Your task to perform on an android device: toggle priority inbox in the gmail app Image 0: 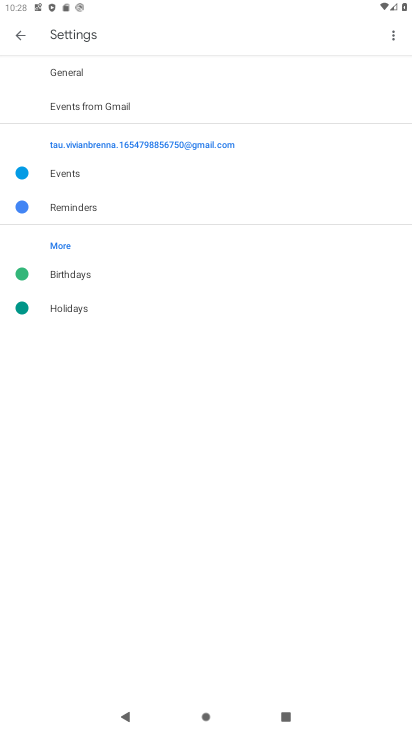
Step 0: press home button
Your task to perform on an android device: toggle priority inbox in the gmail app Image 1: 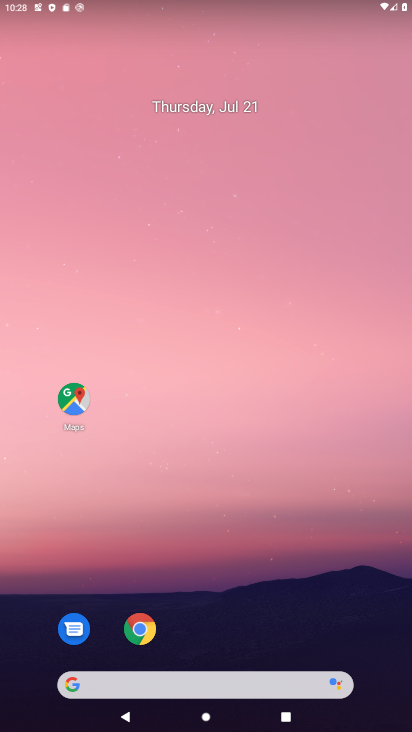
Step 1: drag from (217, 641) to (227, 131)
Your task to perform on an android device: toggle priority inbox in the gmail app Image 2: 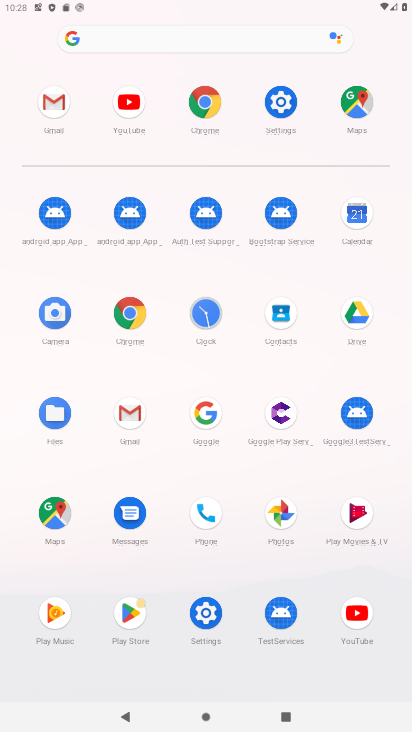
Step 2: click (54, 111)
Your task to perform on an android device: toggle priority inbox in the gmail app Image 3: 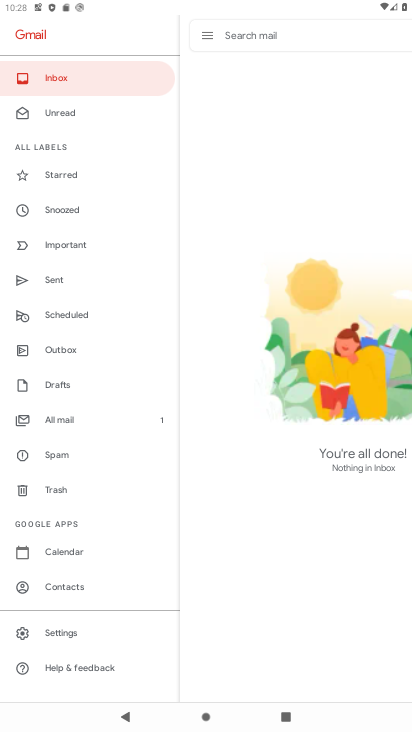
Step 3: click (84, 631)
Your task to perform on an android device: toggle priority inbox in the gmail app Image 4: 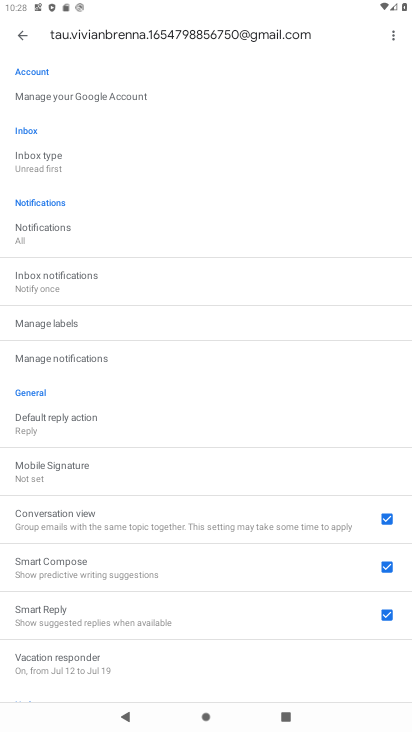
Step 4: click (66, 156)
Your task to perform on an android device: toggle priority inbox in the gmail app Image 5: 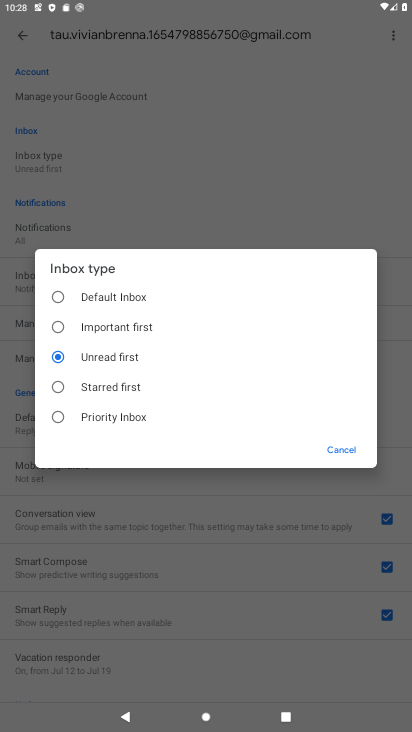
Step 5: click (146, 350)
Your task to perform on an android device: toggle priority inbox in the gmail app Image 6: 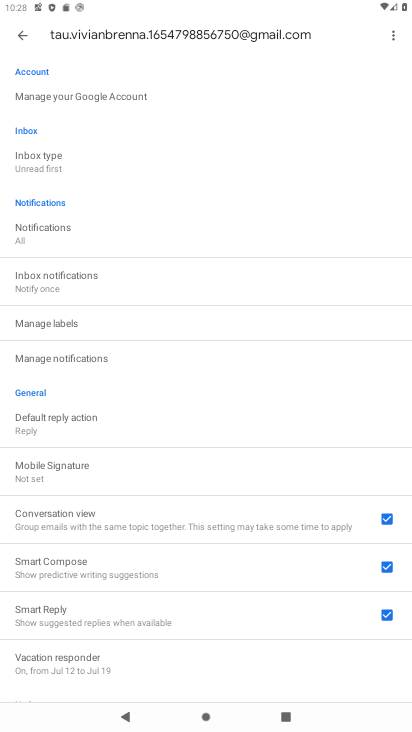
Step 6: click (144, 338)
Your task to perform on an android device: toggle priority inbox in the gmail app Image 7: 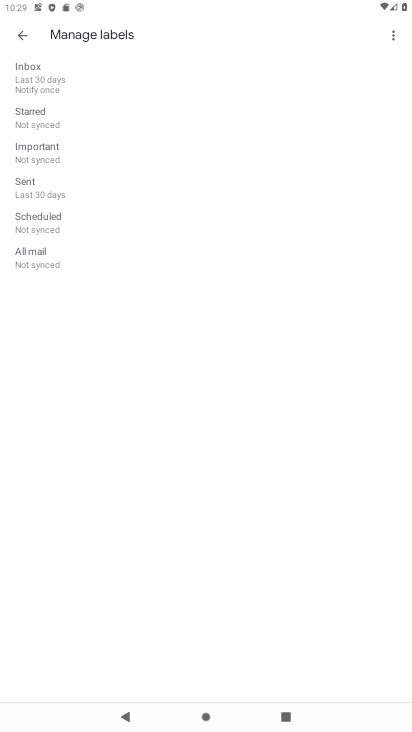
Step 7: task complete